Your task to perform on an android device: see tabs open on other devices in the chrome app Image 0: 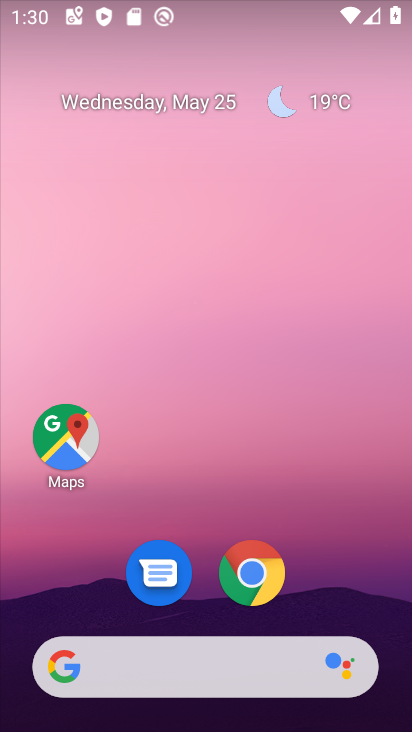
Step 0: click (247, 575)
Your task to perform on an android device: see tabs open on other devices in the chrome app Image 1: 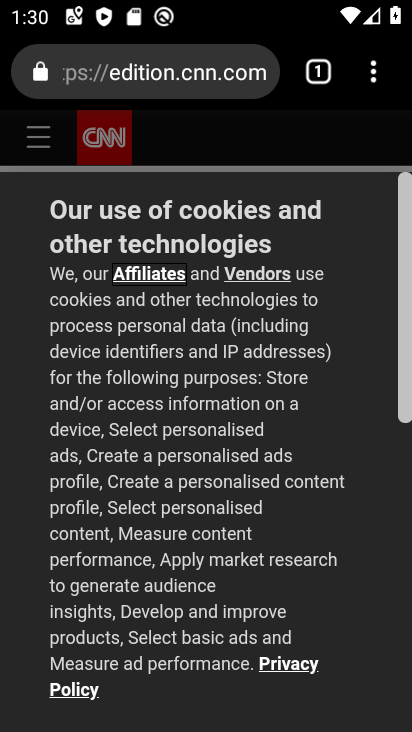
Step 1: click (369, 79)
Your task to perform on an android device: see tabs open on other devices in the chrome app Image 2: 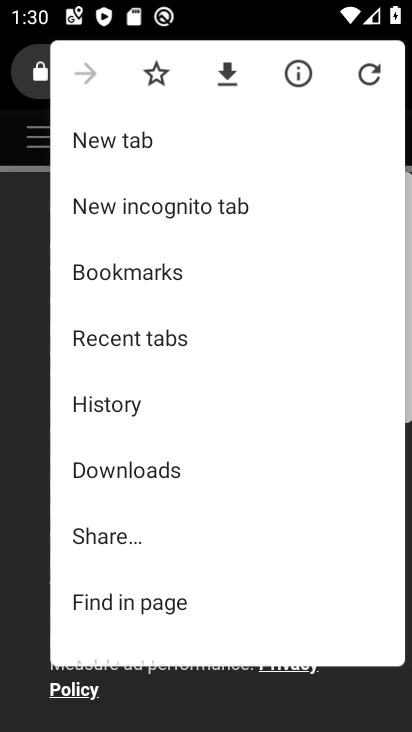
Step 2: drag from (214, 571) to (264, 174)
Your task to perform on an android device: see tabs open on other devices in the chrome app Image 3: 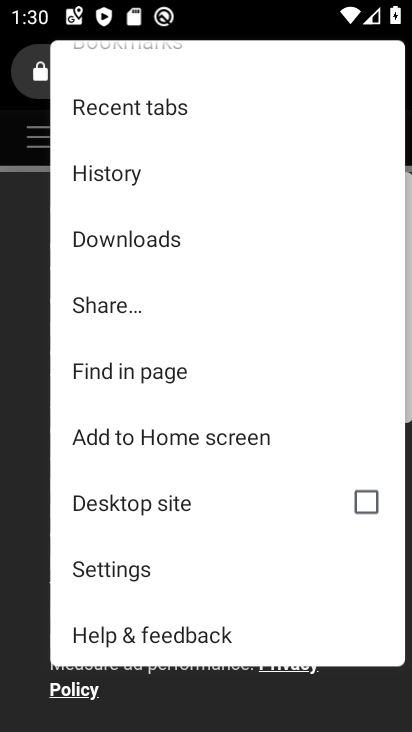
Step 3: click (122, 563)
Your task to perform on an android device: see tabs open on other devices in the chrome app Image 4: 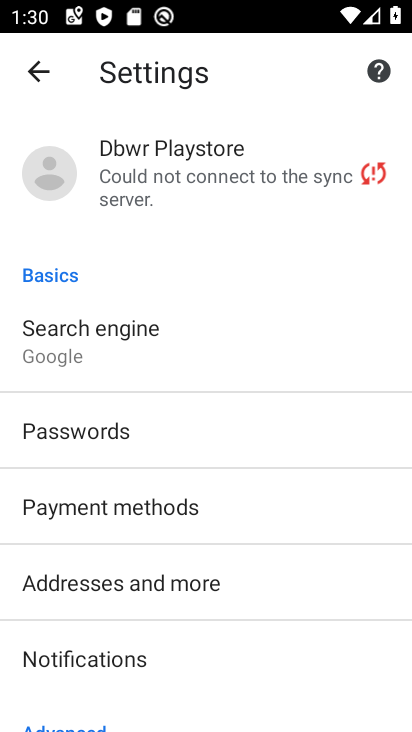
Step 4: drag from (243, 633) to (220, 398)
Your task to perform on an android device: see tabs open on other devices in the chrome app Image 5: 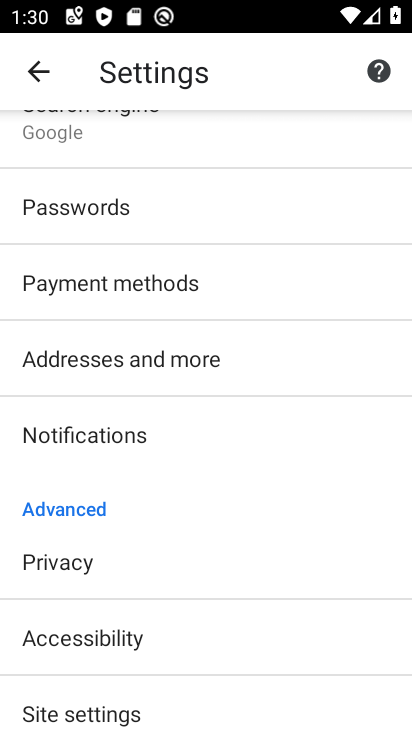
Step 5: drag from (261, 336) to (242, 576)
Your task to perform on an android device: see tabs open on other devices in the chrome app Image 6: 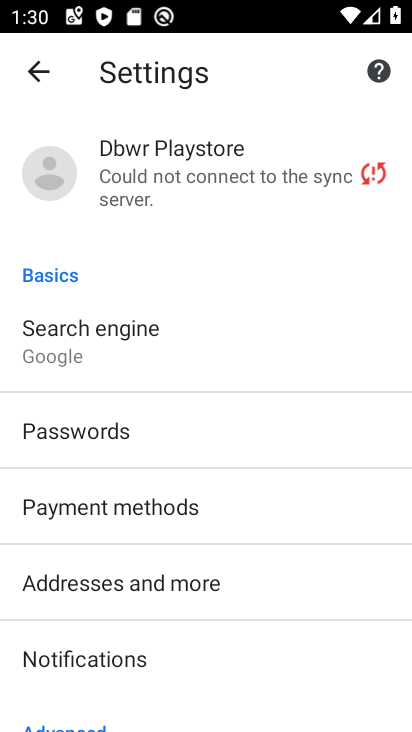
Step 6: press back button
Your task to perform on an android device: see tabs open on other devices in the chrome app Image 7: 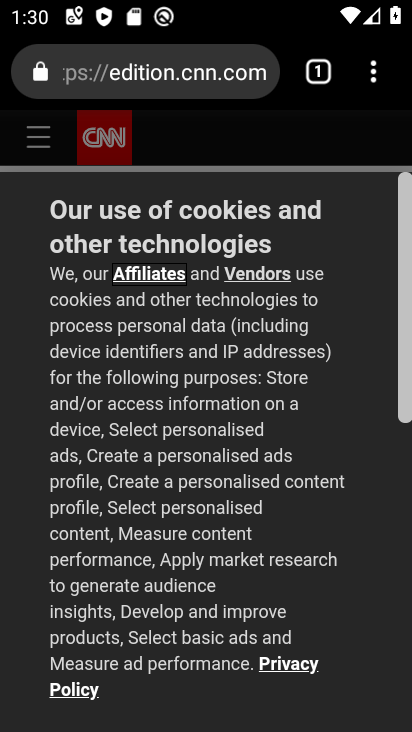
Step 7: click (371, 85)
Your task to perform on an android device: see tabs open on other devices in the chrome app Image 8: 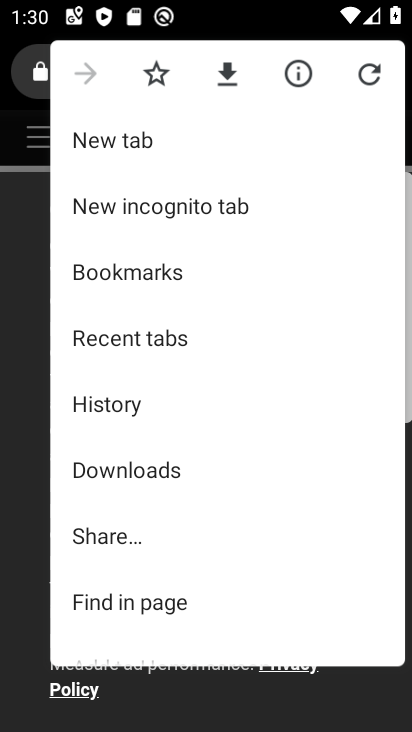
Step 8: click (136, 336)
Your task to perform on an android device: see tabs open on other devices in the chrome app Image 9: 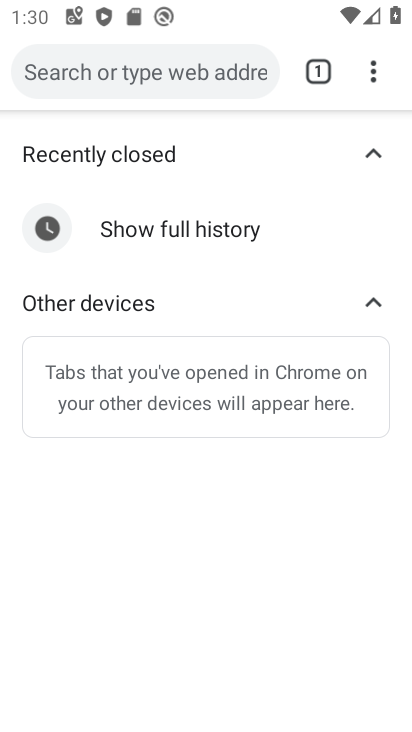
Step 9: task complete